Your task to perform on an android device: read, delete, or share a saved page in the chrome app Image 0: 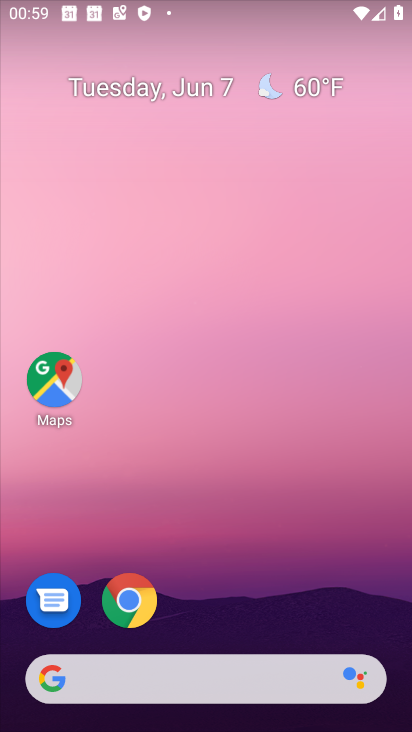
Step 0: click (126, 599)
Your task to perform on an android device: read, delete, or share a saved page in the chrome app Image 1: 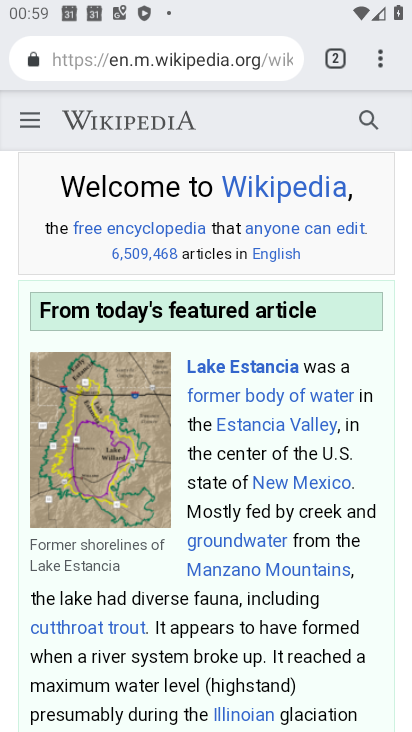
Step 1: click (380, 62)
Your task to perform on an android device: read, delete, or share a saved page in the chrome app Image 2: 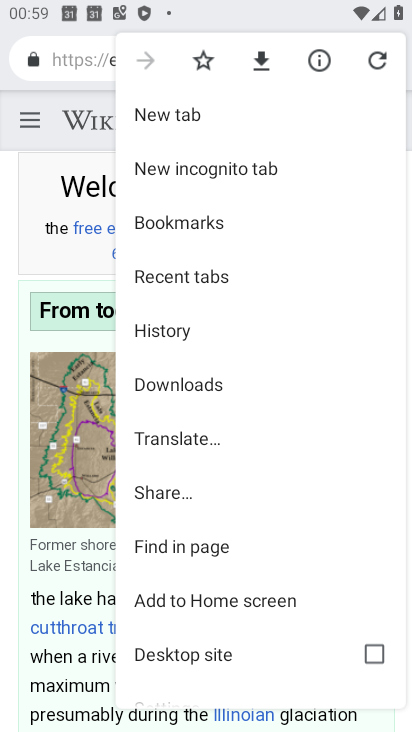
Step 2: click (167, 384)
Your task to perform on an android device: read, delete, or share a saved page in the chrome app Image 3: 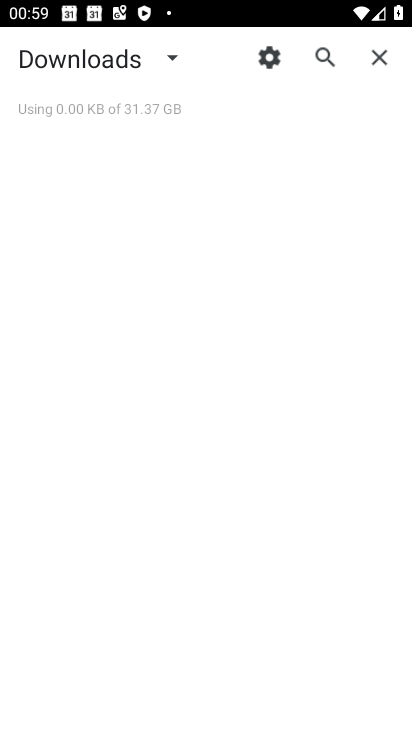
Step 3: click (171, 56)
Your task to perform on an android device: read, delete, or share a saved page in the chrome app Image 4: 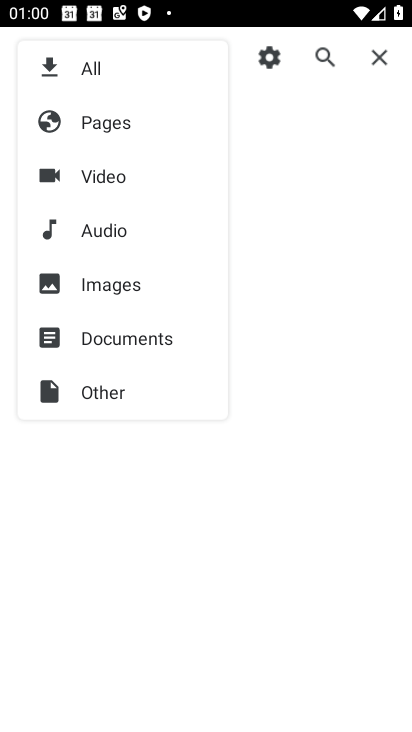
Step 4: click (106, 119)
Your task to perform on an android device: read, delete, or share a saved page in the chrome app Image 5: 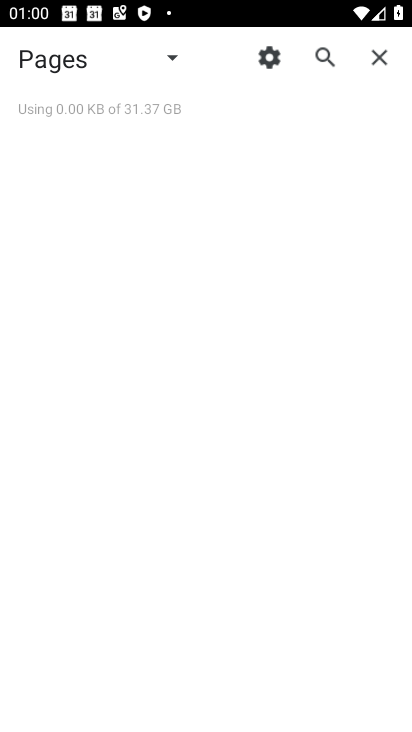
Step 5: task complete